Your task to perform on an android device: Go to network settings Image 0: 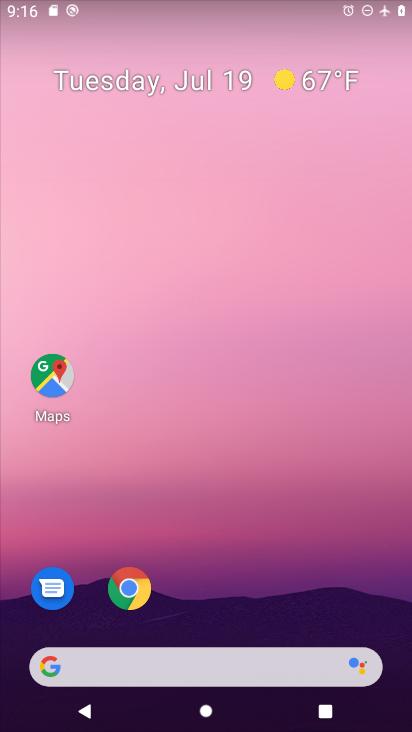
Step 0: drag from (362, 567) to (395, 134)
Your task to perform on an android device: Go to network settings Image 1: 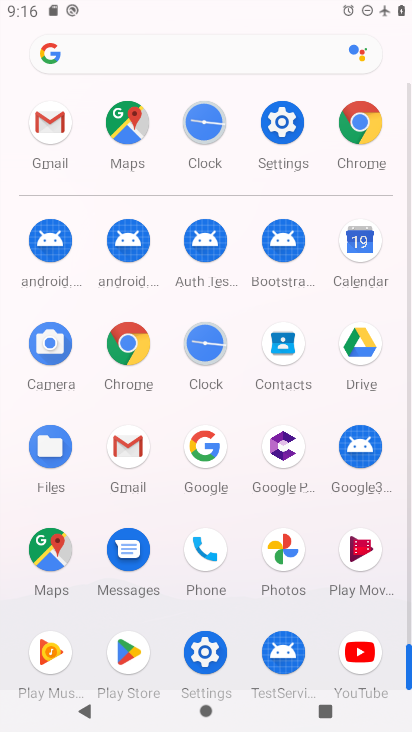
Step 1: click (284, 137)
Your task to perform on an android device: Go to network settings Image 2: 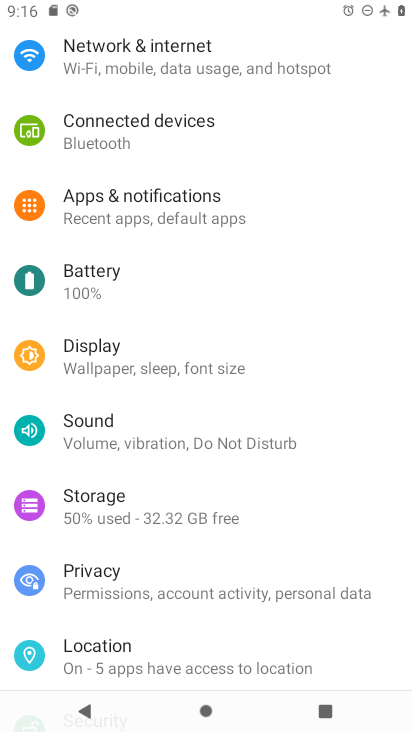
Step 2: drag from (320, 161) to (345, 247)
Your task to perform on an android device: Go to network settings Image 3: 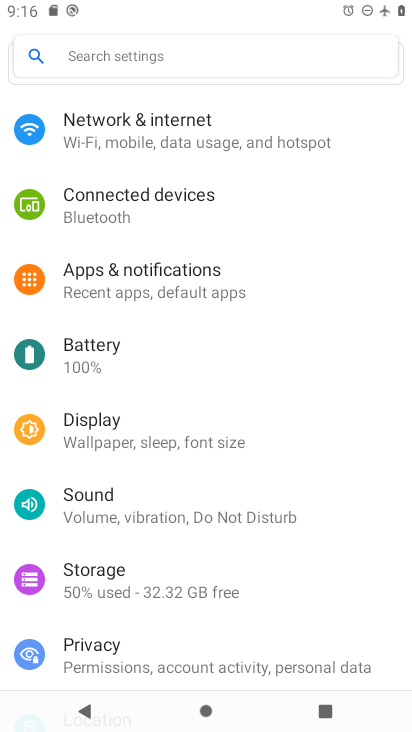
Step 3: drag from (359, 130) to (383, 245)
Your task to perform on an android device: Go to network settings Image 4: 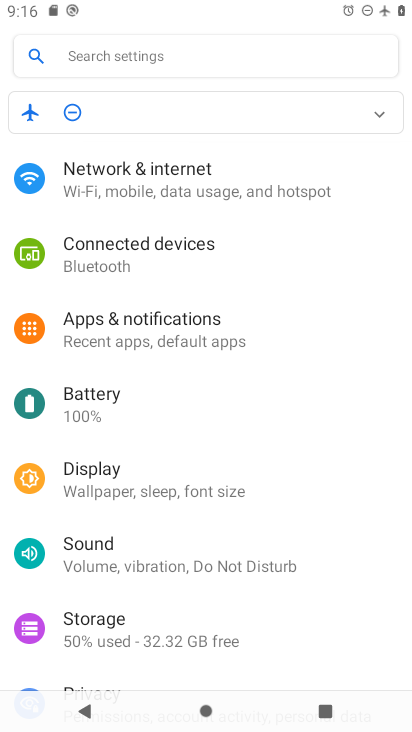
Step 4: click (266, 193)
Your task to perform on an android device: Go to network settings Image 5: 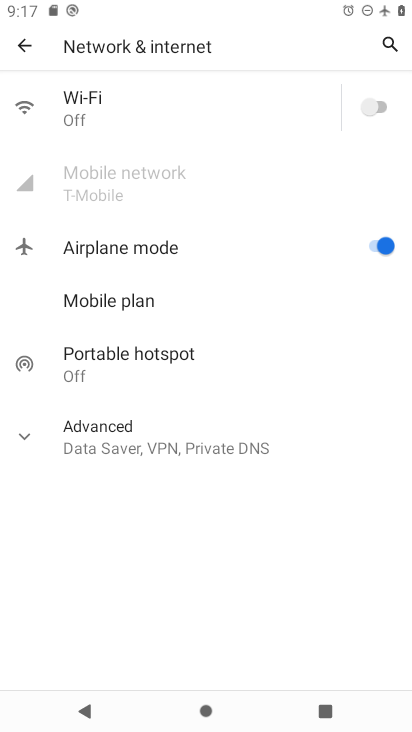
Step 5: task complete